Your task to perform on an android device: install app "Google Translate" Image 0: 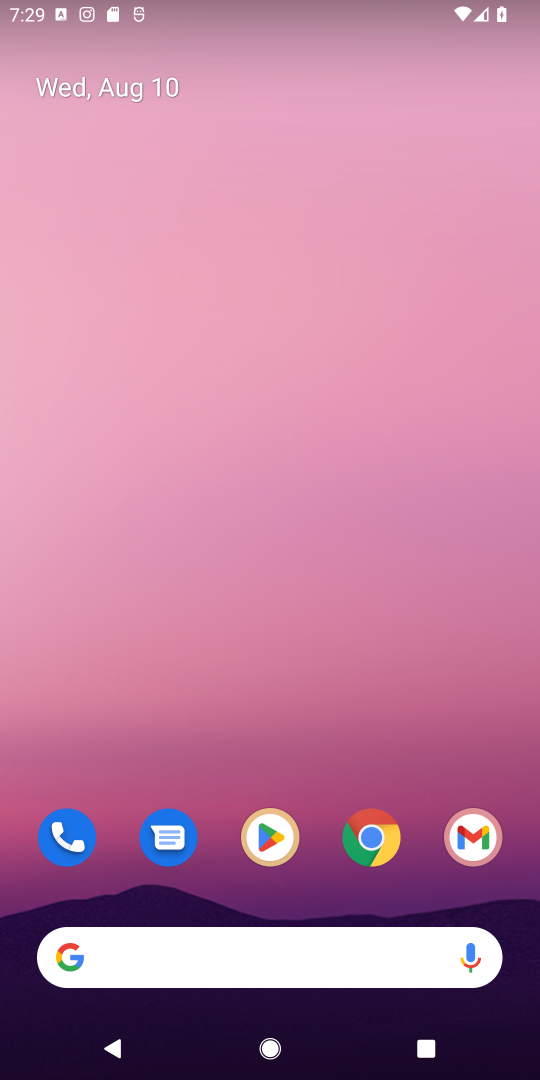
Step 0: press home button
Your task to perform on an android device: install app "Google Translate" Image 1: 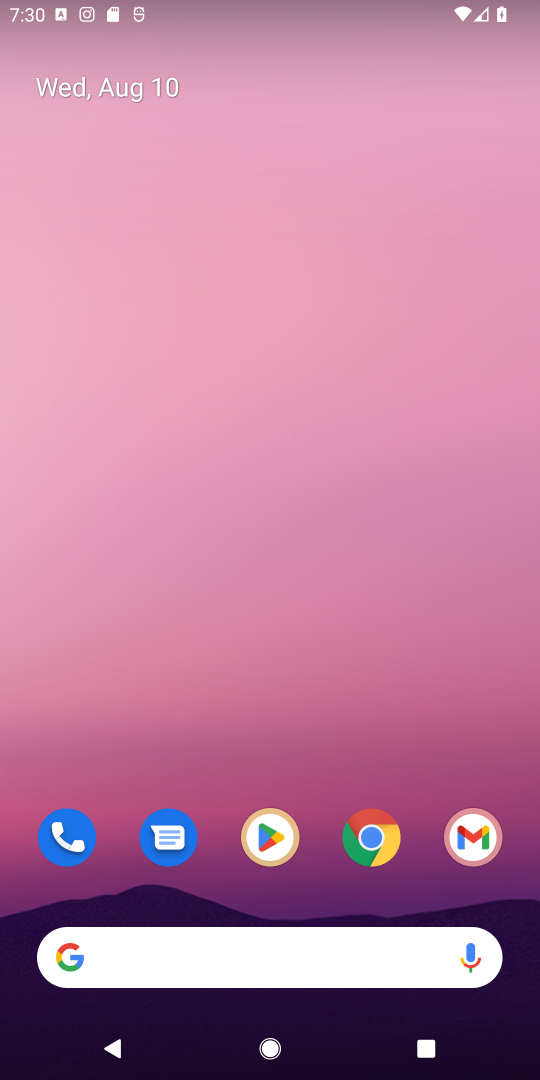
Step 1: click (264, 835)
Your task to perform on an android device: install app "Google Translate" Image 2: 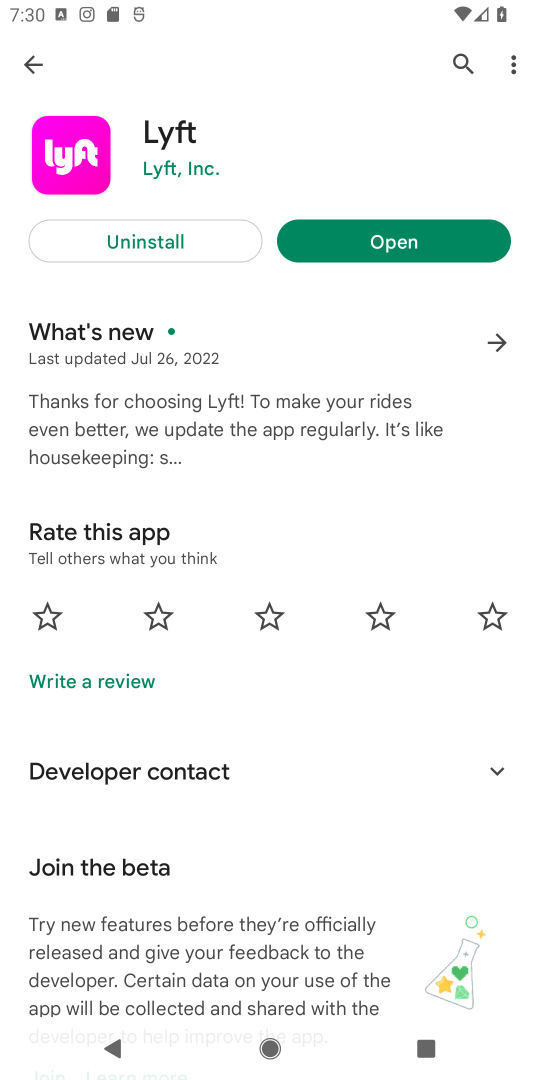
Step 2: click (460, 59)
Your task to perform on an android device: install app "Google Translate" Image 3: 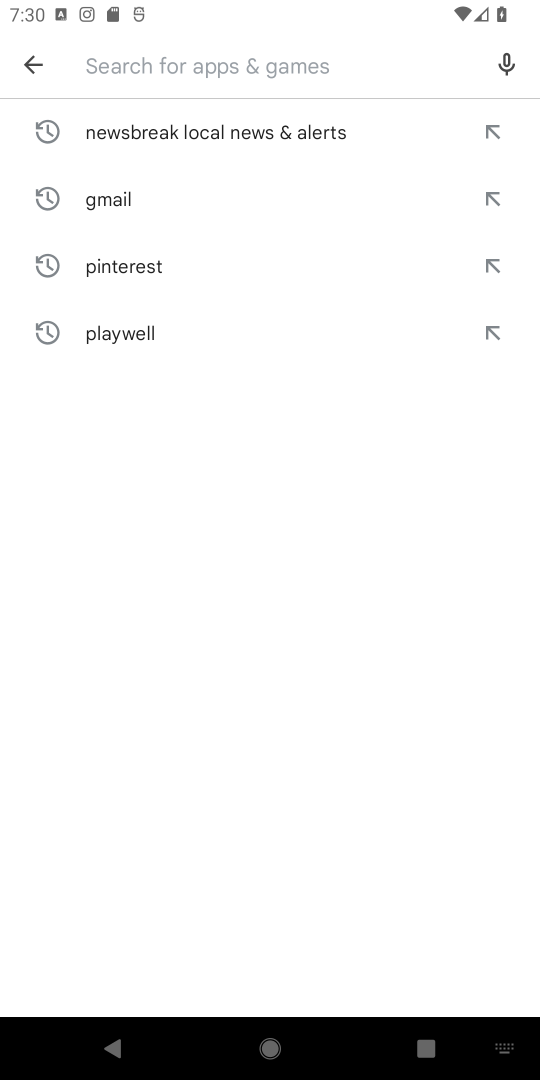
Step 3: type "Google Translate"
Your task to perform on an android device: install app "Google Translate" Image 4: 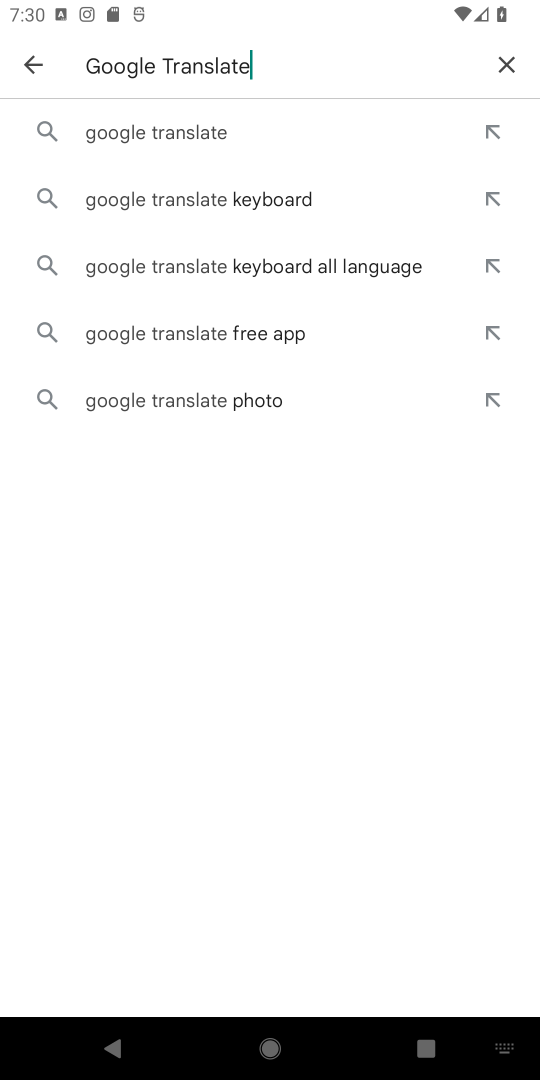
Step 4: click (132, 133)
Your task to perform on an android device: install app "Google Translate" Image 5: 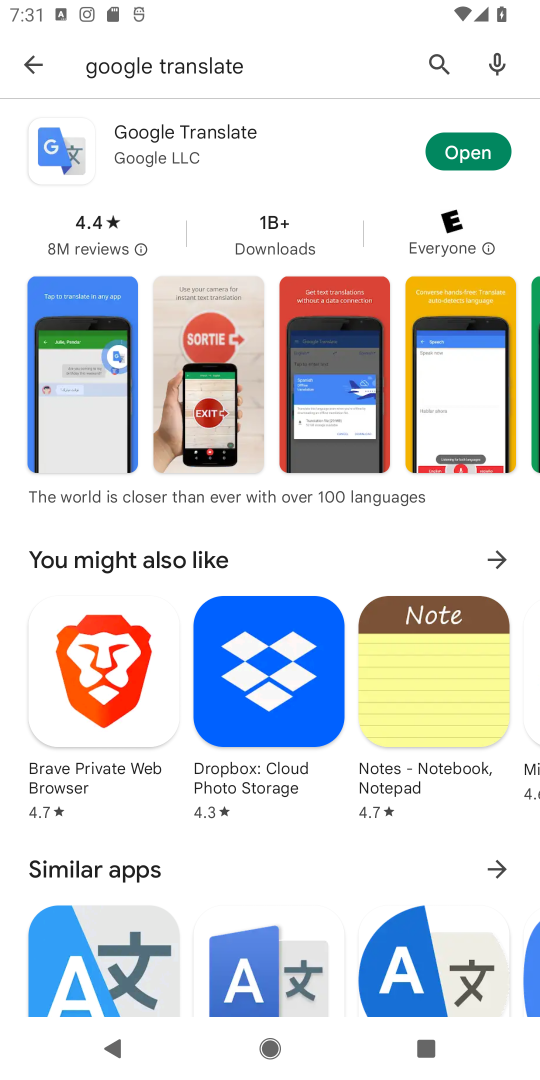
Step 5: task complete